Your task to perform on an android device: change the clock display to analog Image 0: 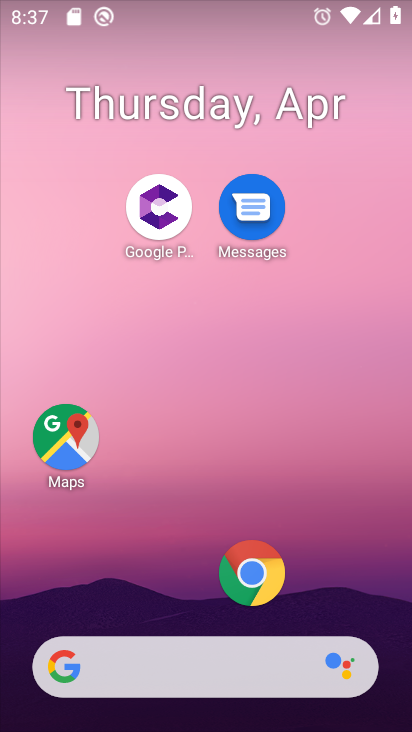
Step 0: press home button
Your task to perform on an android device: change the clock display to analog Image 1: 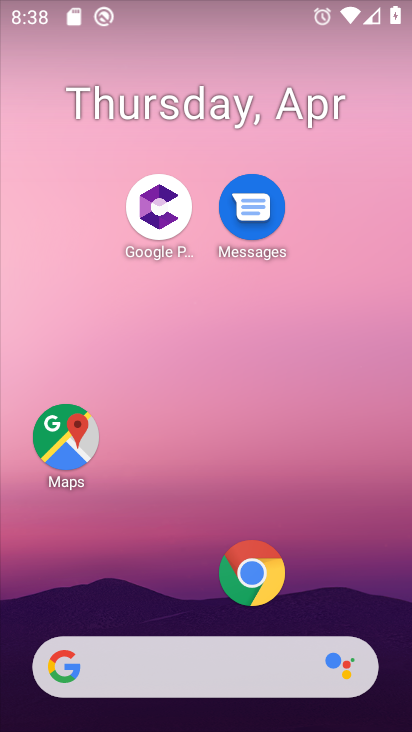
Step 1: drag from (202, 613) to (241, 79)
Your task to perform on an android device: change the clock display to analog Image 2: 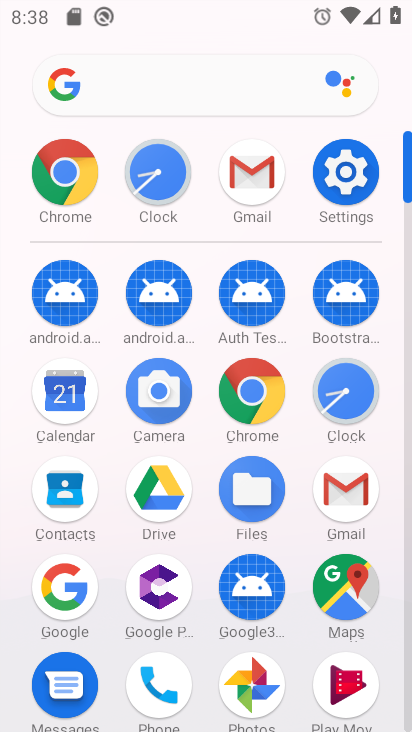
Step 2: click (342, 384)
Your task to perform on an android device: change the clock display to analog Image 3: 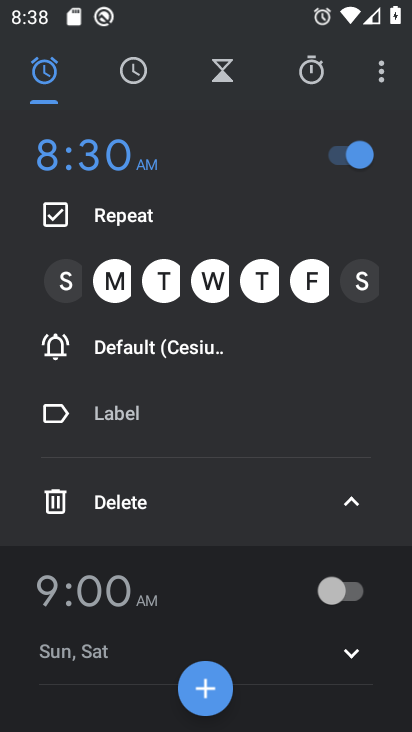
Step 3: click (383, 65)
Your task to perform on an android device: change the clock display to analog Image 4: 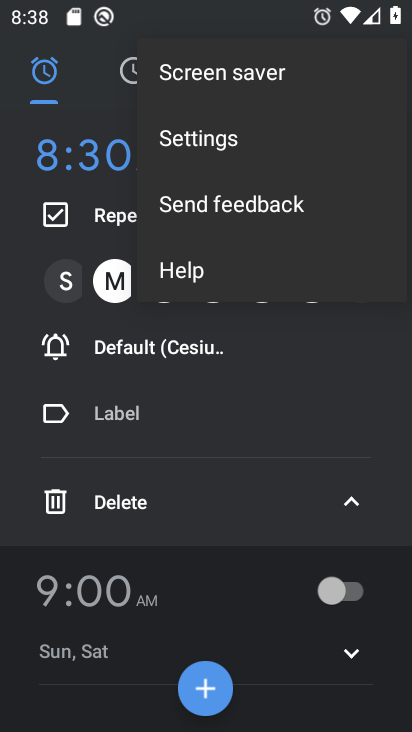
Step 4: click (248, 135)
Your task to perform on an android device: change the clock display to analog Image 5: 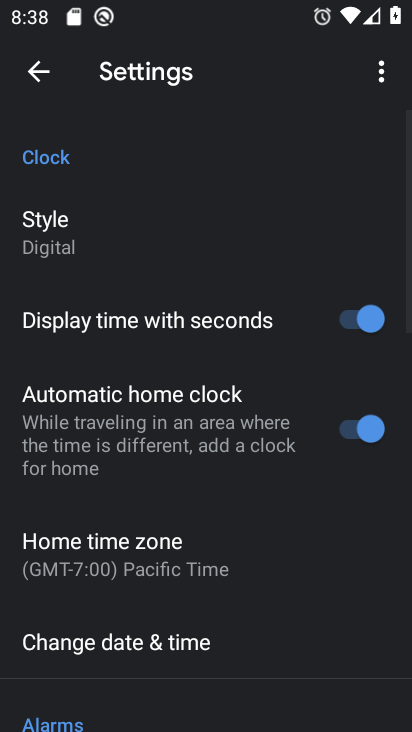
Step 5: click (94, 232)
Your task to perform on an android device: change the clock display to analog Image 6: 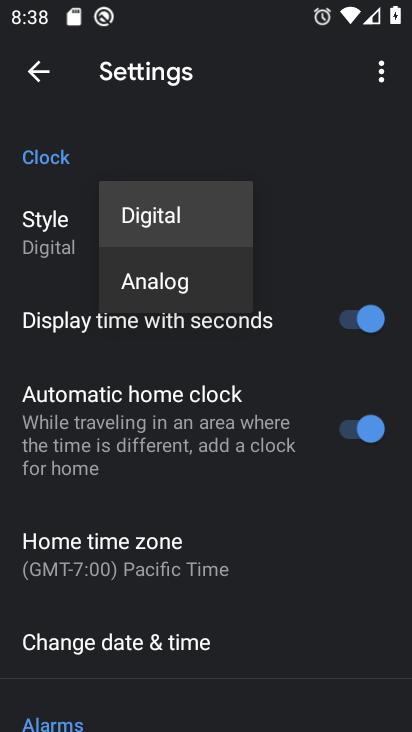
Step 6: click (142, 282)
Your task to perform on an android device: change the clock display to analog Image 7: 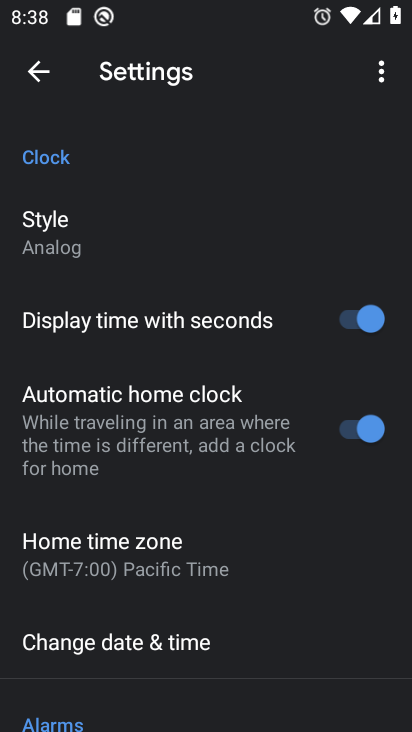
Step 7: task complete